Your task to perform on an android device: open device folders in google photos Image 0: 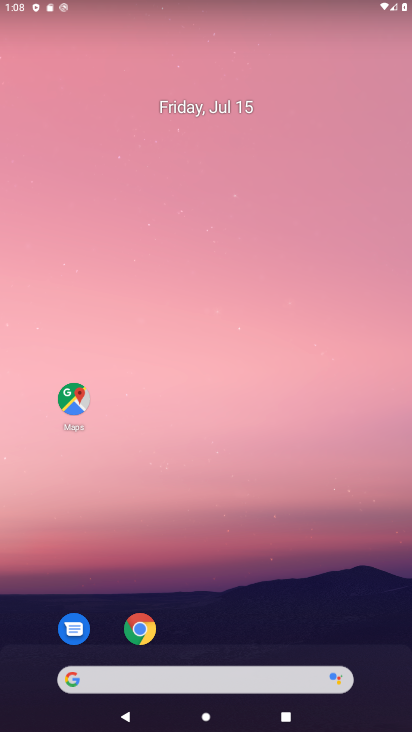
Step 0: drag from (240, 544) to (260, 106)
Your task to perform on an android device: open device folders in google photos Image 1: 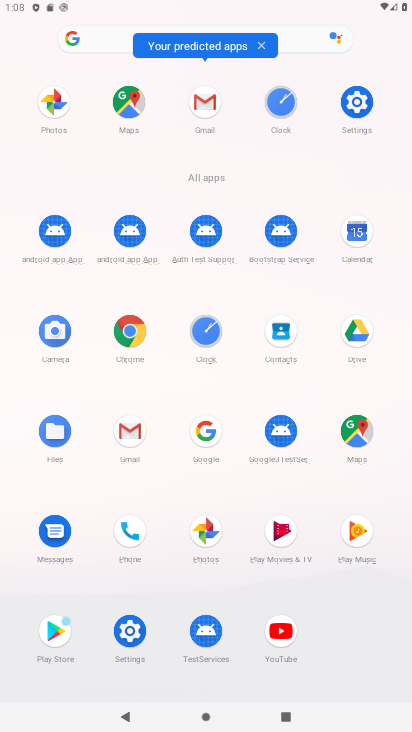
Step 1: click (54, 106)
Your task to perform on an android device: open device folders in google photos Image 2: 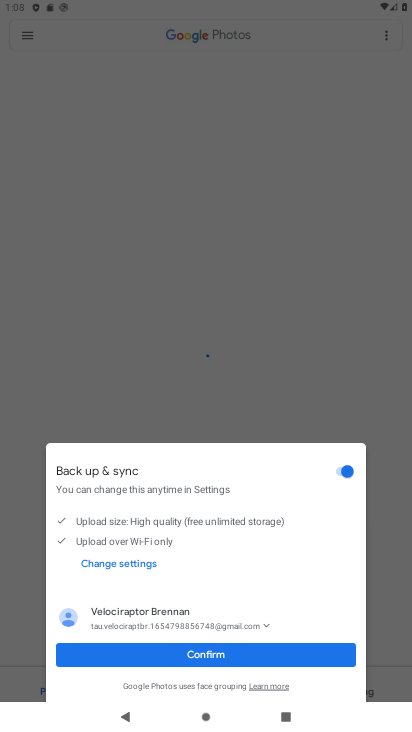
Step 2: click (222, 660)
Your task to perform on an android device: open device folders in google photos Image 3: 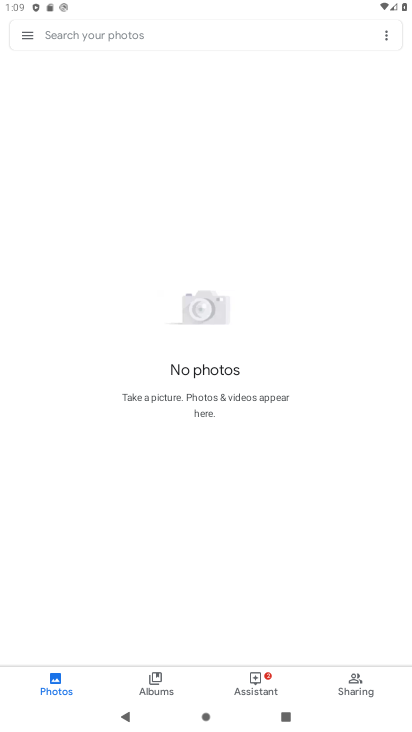
Step 3: click (24, 42)
Your task to perform on an android device: open device folders in google photos Image 4: 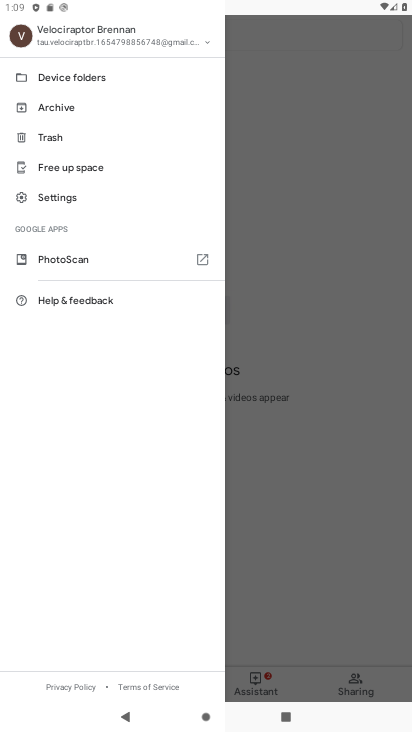
Step 4: click (31, 73)
Your task to perform on an android device: open device folders in google photos Image 5: 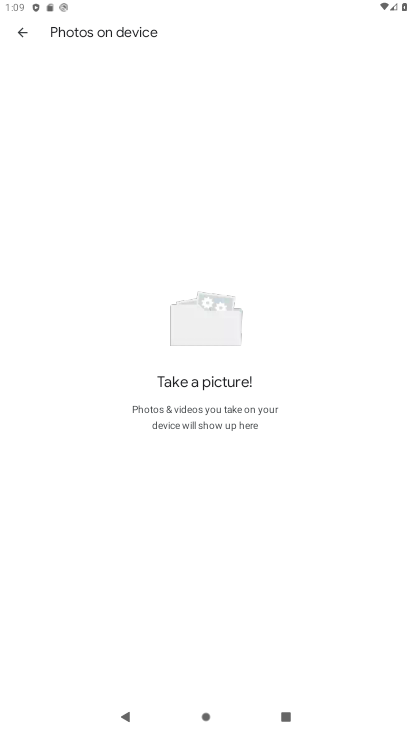
Step 5: task complete